Your task to perform on an android device: find which apps use the phone's location Image 0: 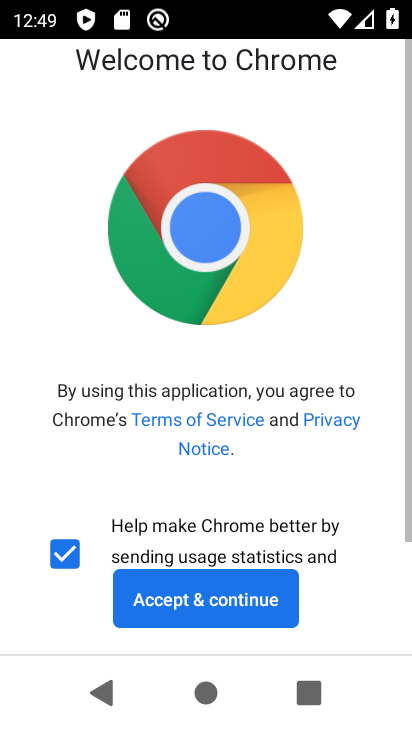
Step 0: press home button
Your task to perform on an android device: find which apps use the phone's location Image 1: 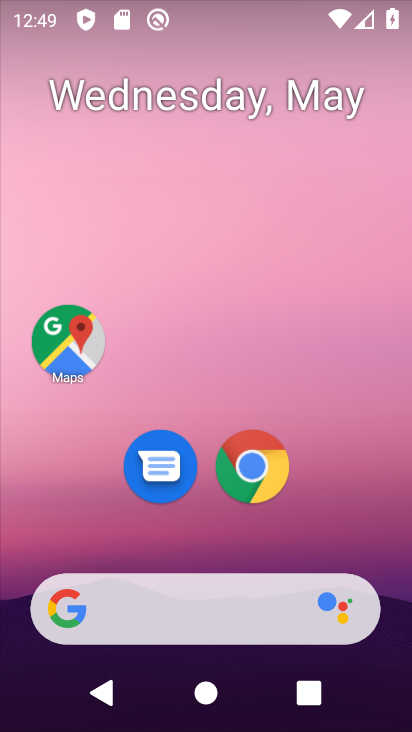
Step 1: drag from (211, 531) to (216, 57)
Your task to perform on an android device: find which apps use the phone's location Image 2: 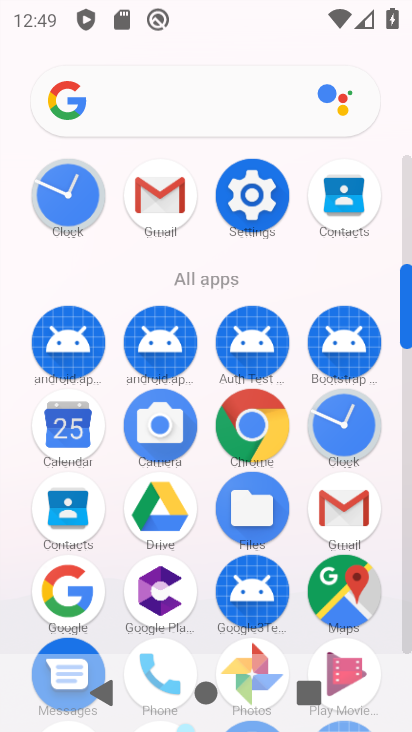
Step 2: click (252, 196)
Your task to perform on an android device: find which apps use the phone's location Image 3: 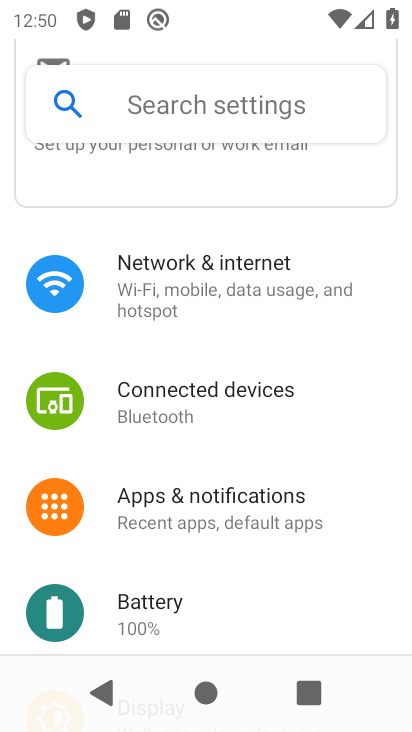
Step 3: drag from (207, 574) to (228, 113)
Your task to perform on an android device: find which apps use the phone's location Image 4: 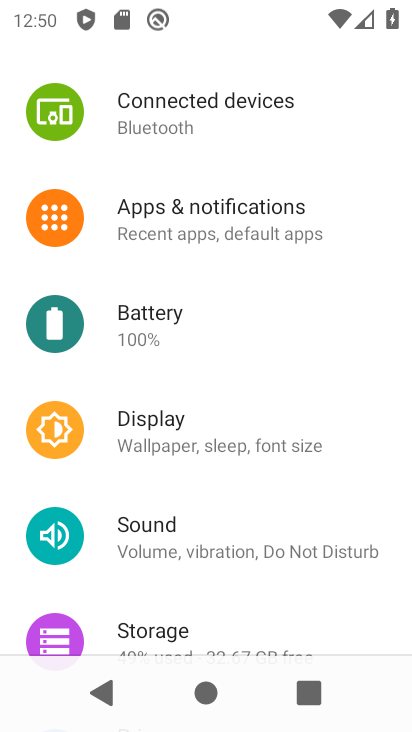
Step 4: drag from (159, 549) to (231, 65)
Your task to perform on an android device: find which apps use the phone's location Image 5: 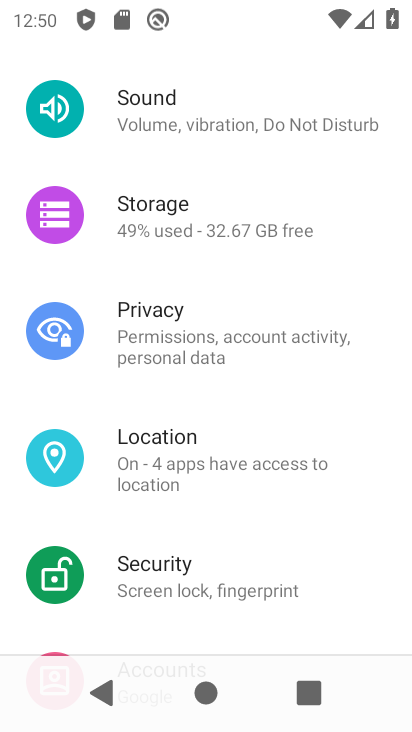
Step 5: click (139, 460)
Your task to perform on an android device: find which apps use the phone's location Image 6: 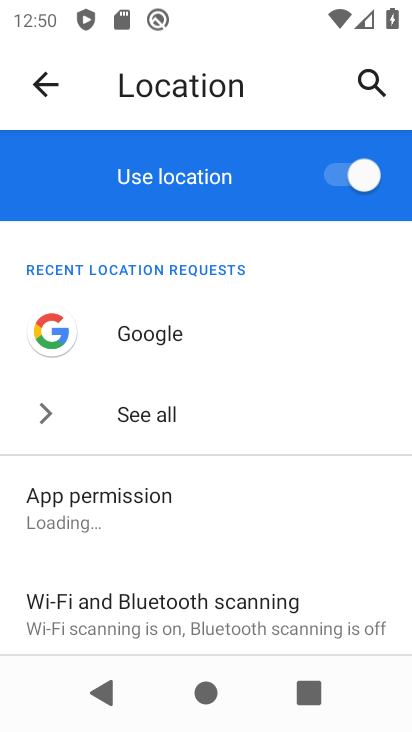
Step 6: drag from (273, 588) to (254, 365)
Your task to perform on an android device: find which apps use the phone's location Image 7: 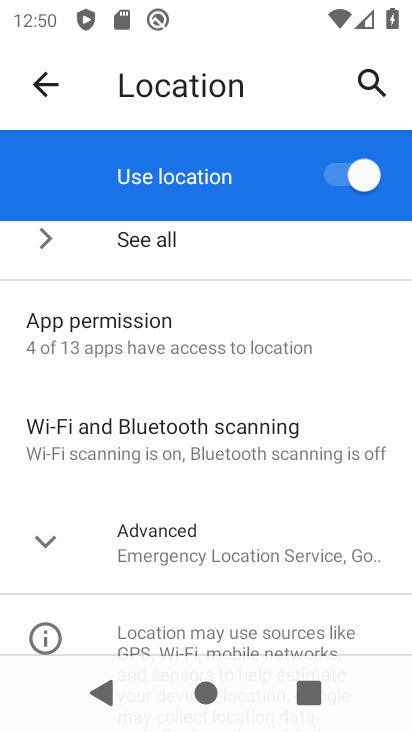
Step 7: click (109, 331)
Your task to perform on an android device: find which apps use the phone's location Image 8: 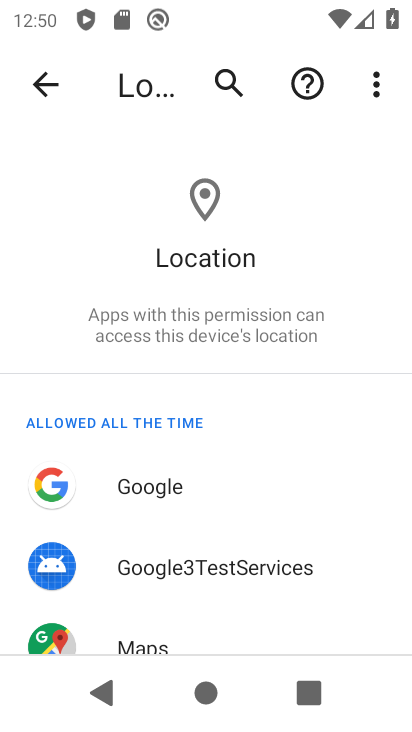
Step 8: task complete